Your task to perform on an android device: uninstall "Skype" Image 0: 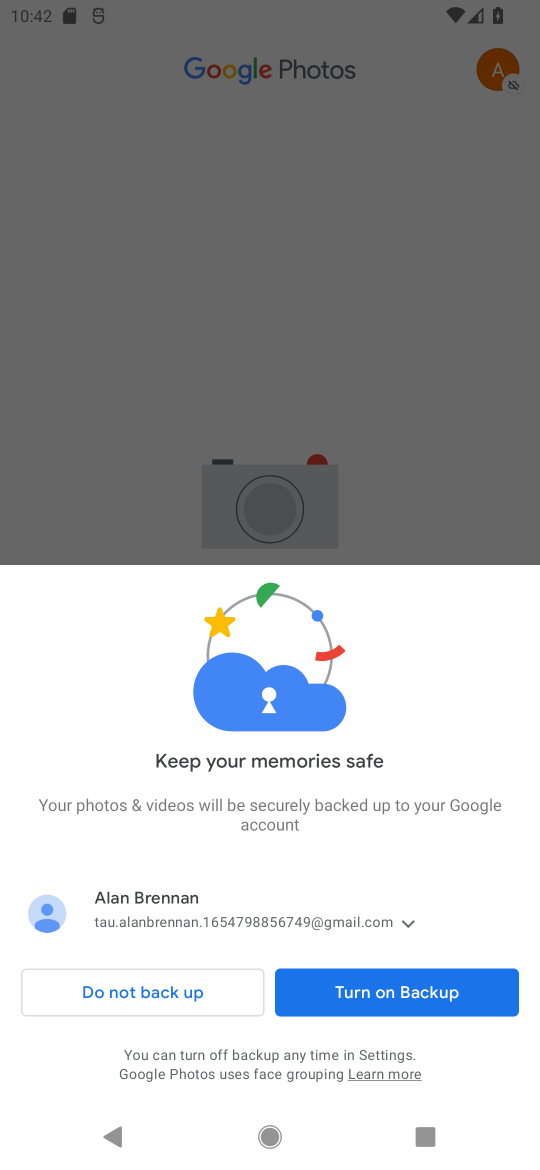
Step 0: press home button
Your task to perform on an android device: uninstall "Skype" Image 1: 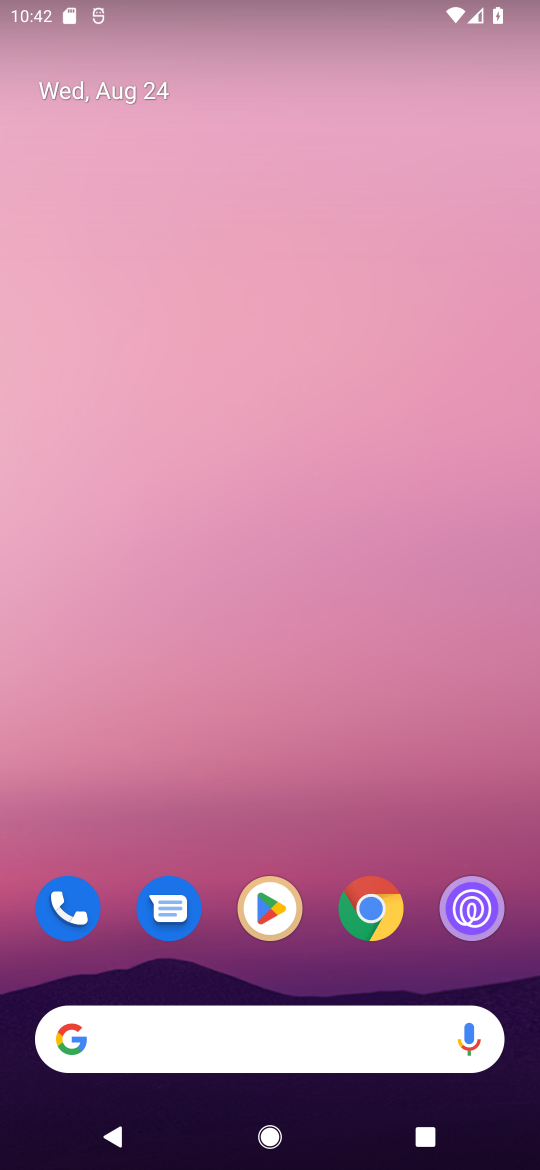
Step 1: click (273, 904)
Your task to perform on an android device: uninstall "Skype" Image 2: 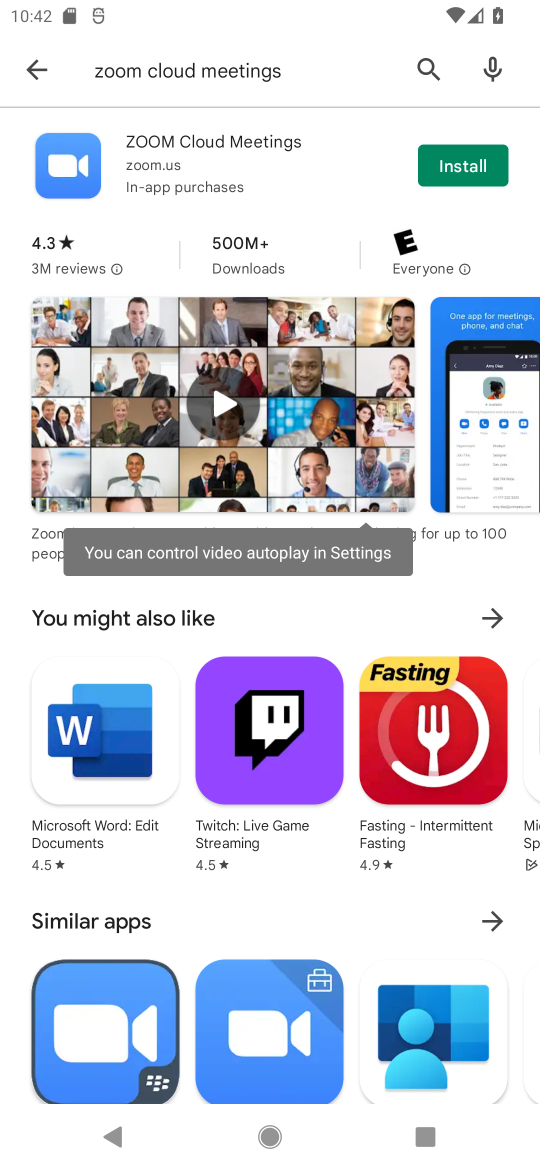
Step 2: click (38, 68)
Your task to perform on an android device: uninstall "Skype" Image 3: 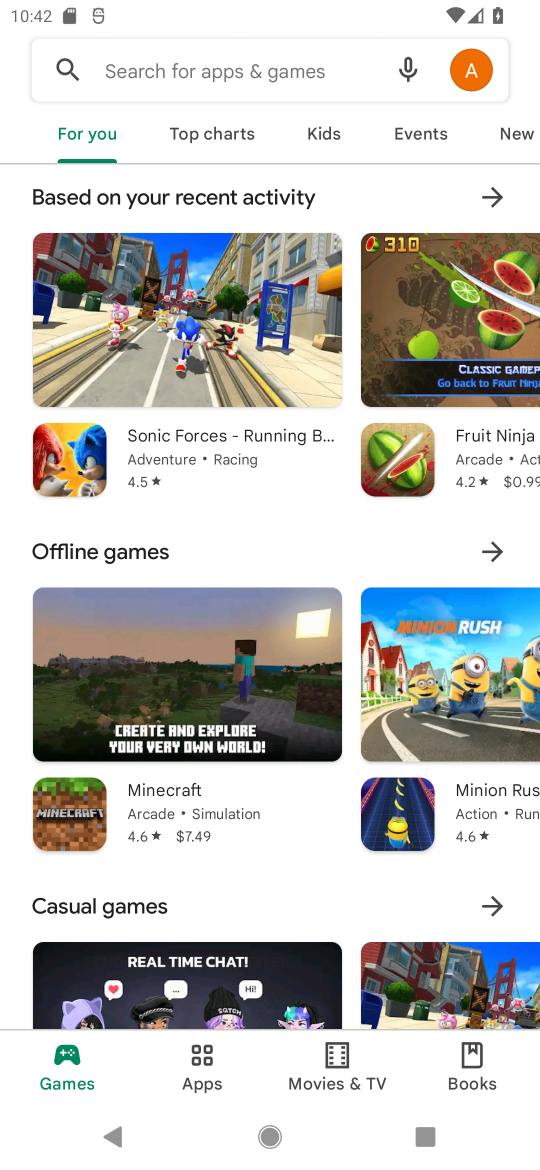
Step 3: click (109, 68)
Your task to perform on an android device: uninstall "Skype" Image 4: 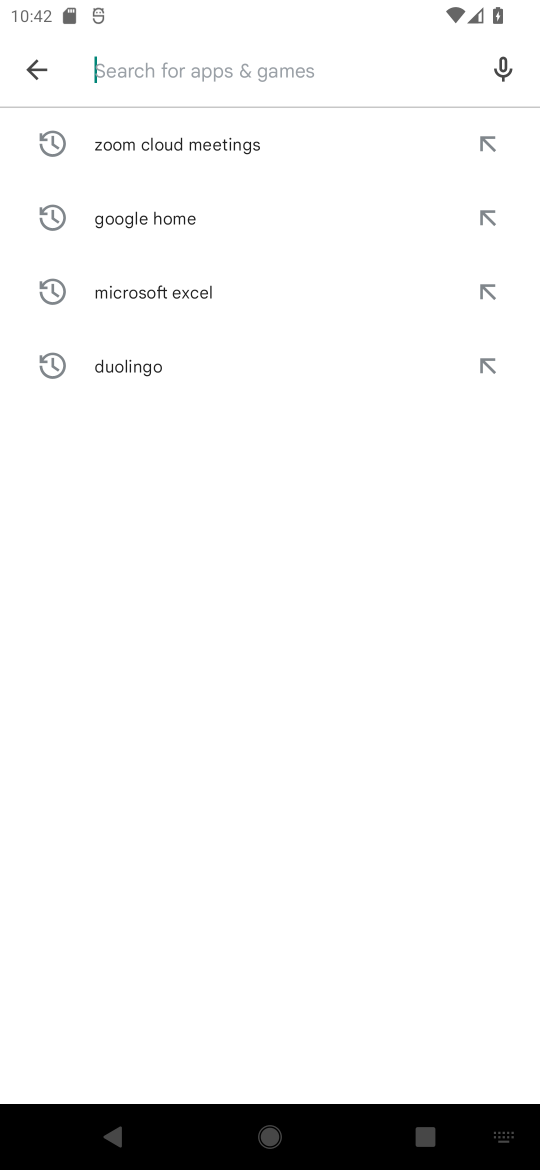
Step 4: type "Skype"
Your task to perform on an android device: uninstall "Skype" Image 5: 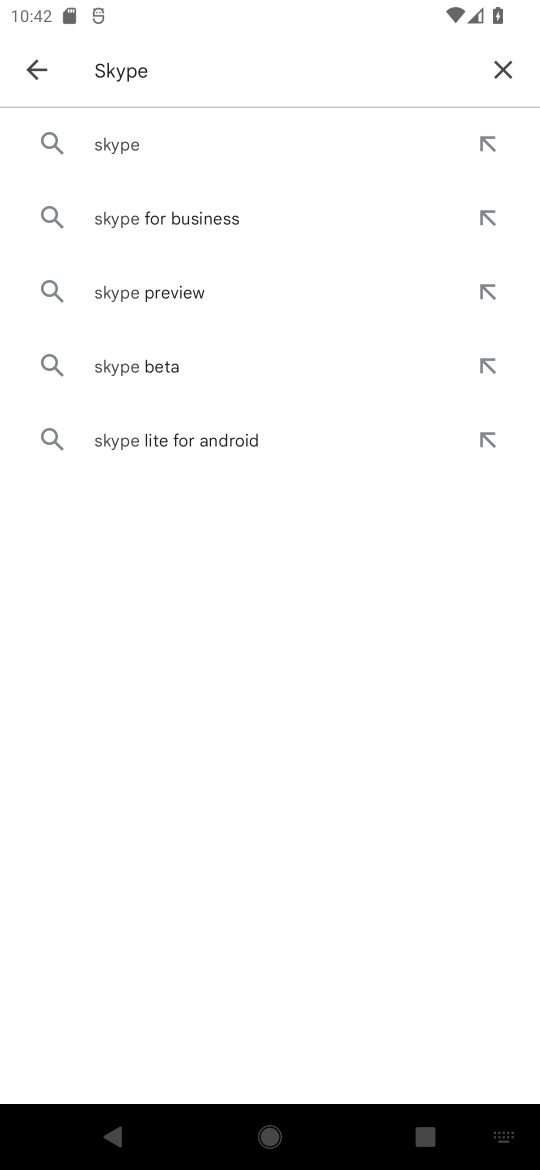
Step 5: click (195, 134)
Your task to perform on an android device: uninstall "Skype" Image 6: 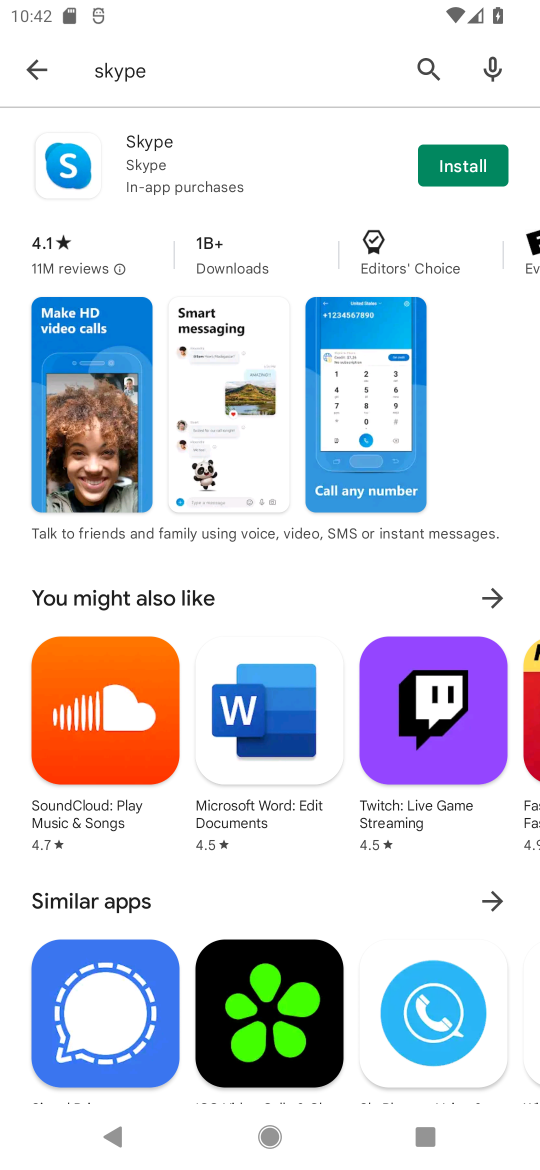
Step 6: task complete